Your task to perform on an android device: Open the phone app and click the voicemail tab. Image 0: 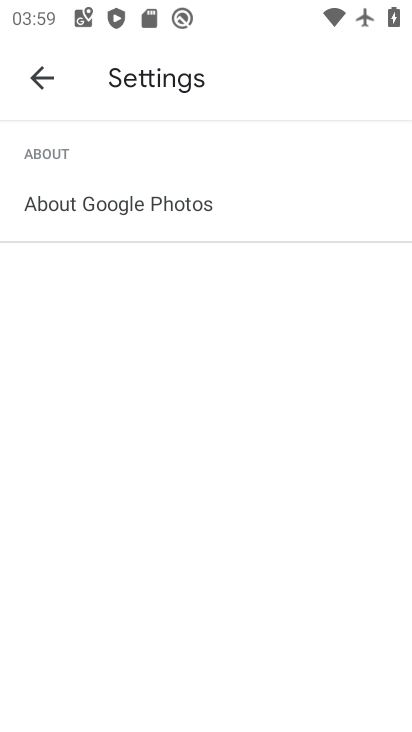
Step 0: press home button
Your task to perform on an android device: Open the phone app and click the voicemail tab. Image 1: 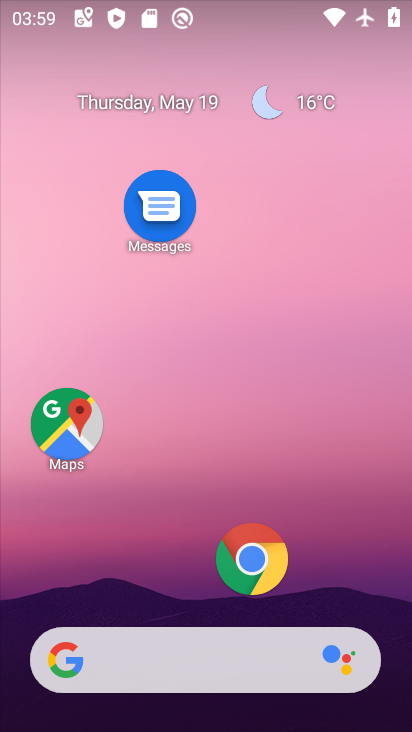
Step 1: drag from (160, 582) to (221, 252)
Your task to perform on an android device: Open the phone app and click the voicemail tab. Image 2: 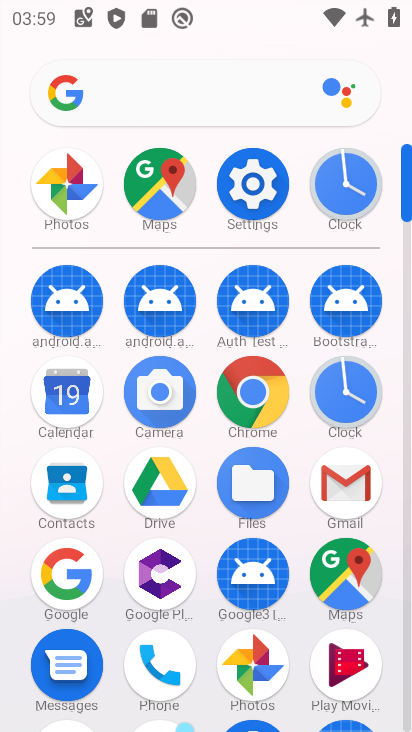
Step 2: click (148, 665)
Your task to perform on an android device: Open the phone app and click the voicemail tab. Image 3: 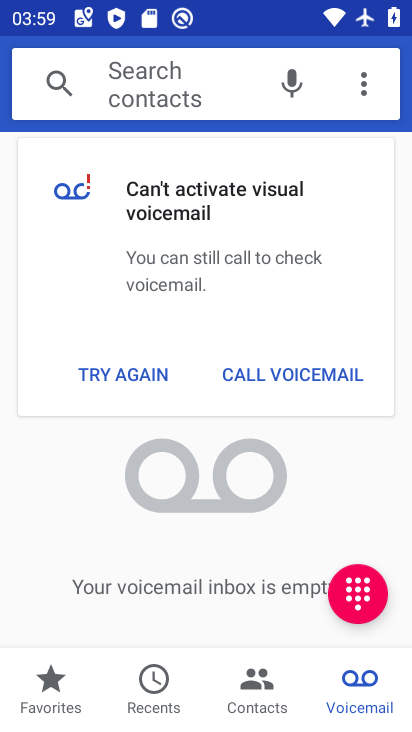
Step 3: task complete